Your task to perform on an android device: open app "PlayWell" (install if not already installed) Image 0: 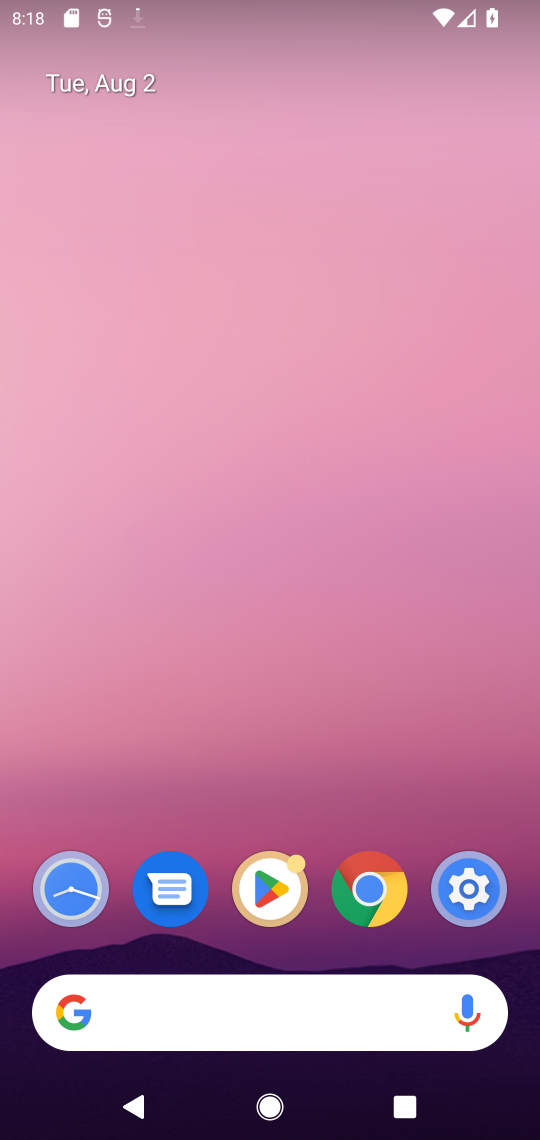
Step 0: press home button
Your task to perform on an android device: open app "PlayWell" (install if not already installed) Image 1: 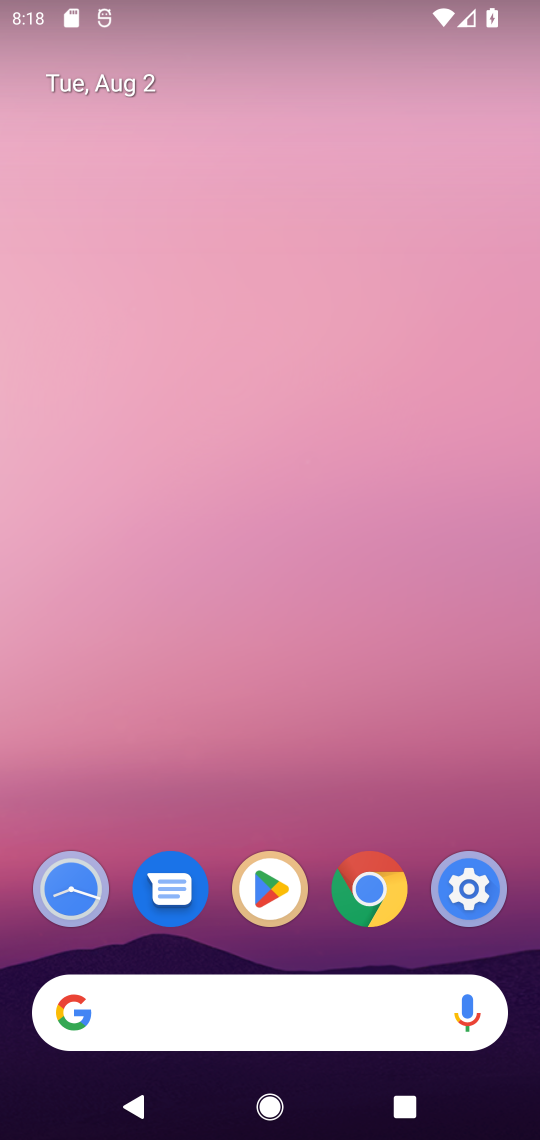
Step 1: press home button
Your task to perform on an android device: open app "PlayWell" (install if not already installed) Image 2: 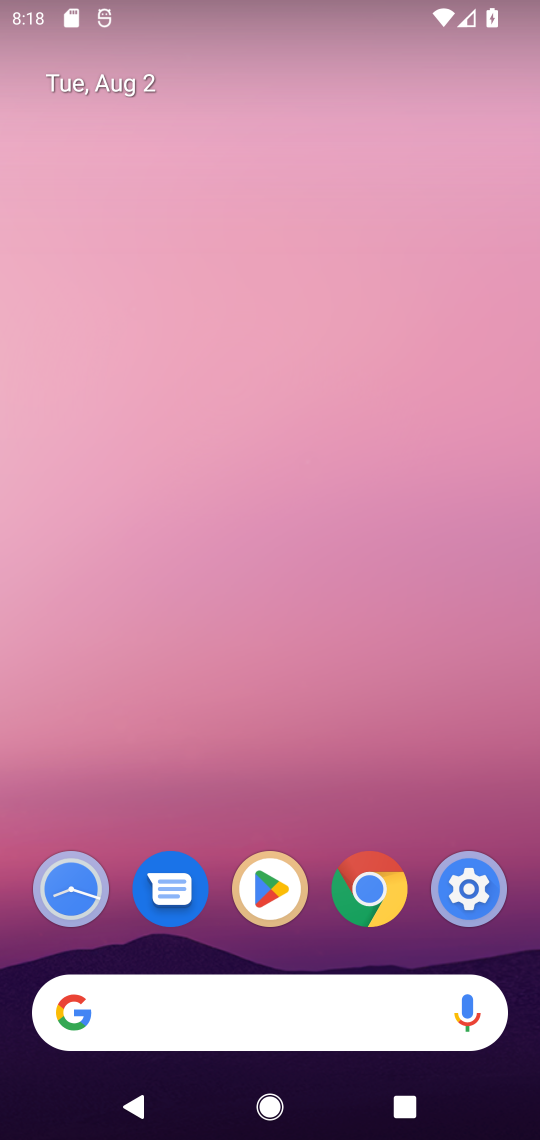
Step 2: click (282, 892)
Your task to perform on an android device: open app "PlayWell" (install if not already installed) Image 3: 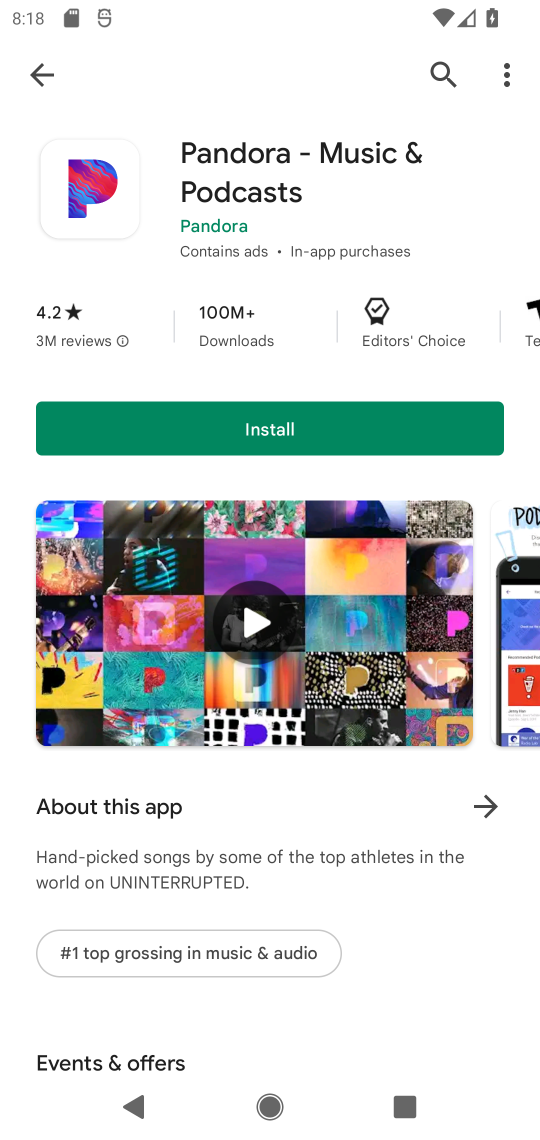
Step 3: click (441, 69)
Your task to perform on an android device: open app "PlayWell" (install if not already installed) Image 4: 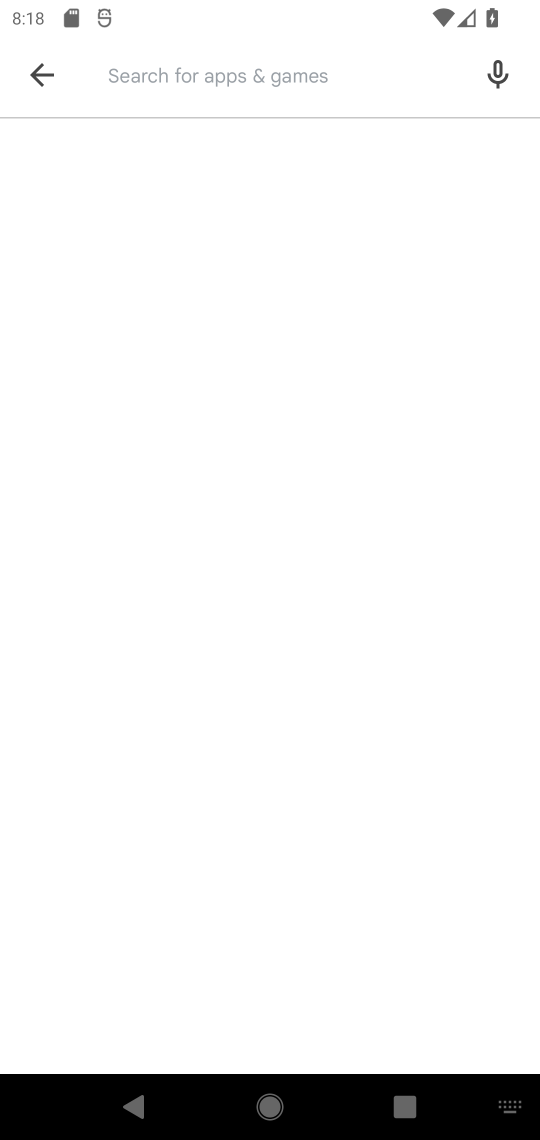
Step 4: type "PlayWell"
Your task to perform on an android device: open app "PlayWell" (install if not already installed) Image 5: 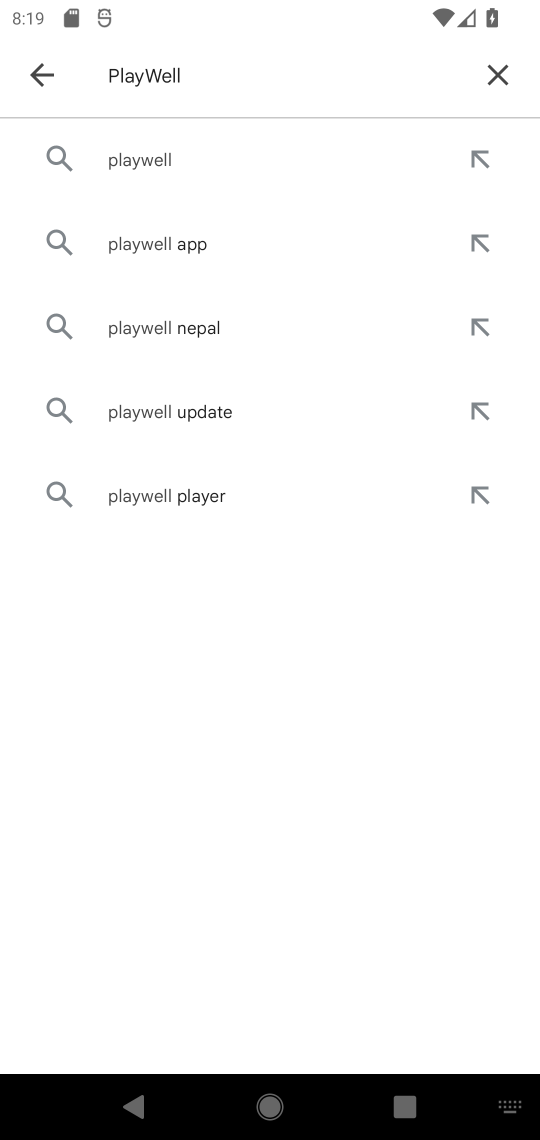
Step 5: click (150, 153)
Your task to perform on an android device: open app "PlayWell" (install if not already installed) Image 6: 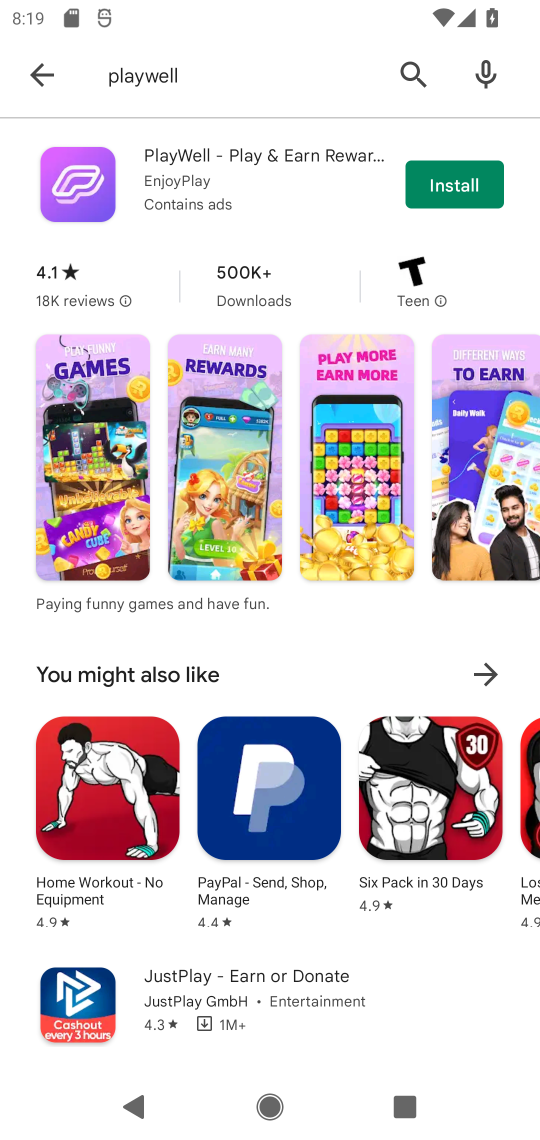
Step 6: click (437, 181)
Your task to perform on an android device: open app "PlayWell" (install if not already installed) Image 7: 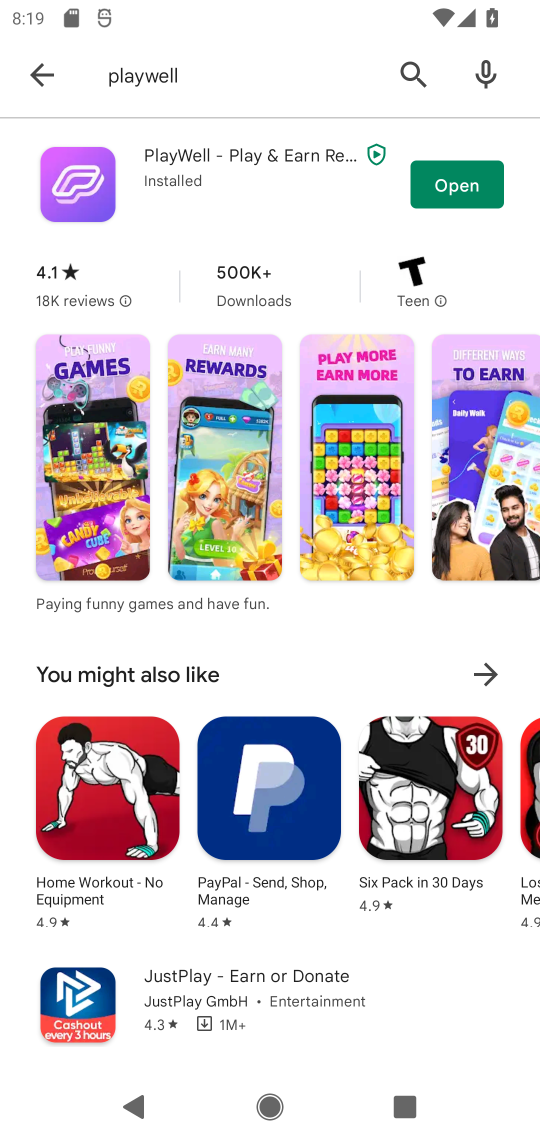
Step 7: click (448, 184)
Your task to perform on an android device: open app "PlayWell" (install if not already installed) Image 8: 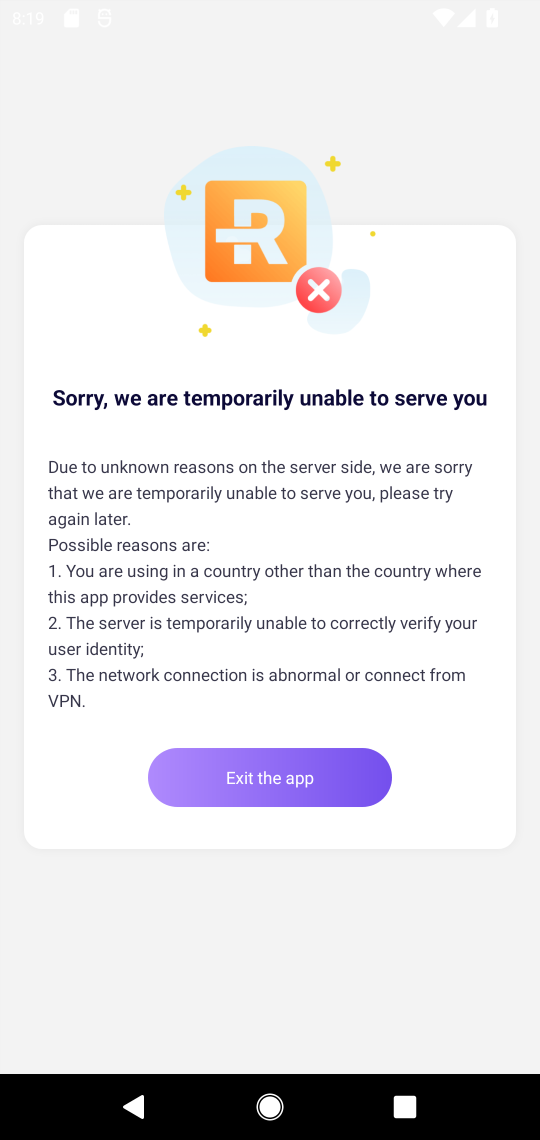
Step 8: task complete